Your task to perform on an android device: Open the map Image 0: 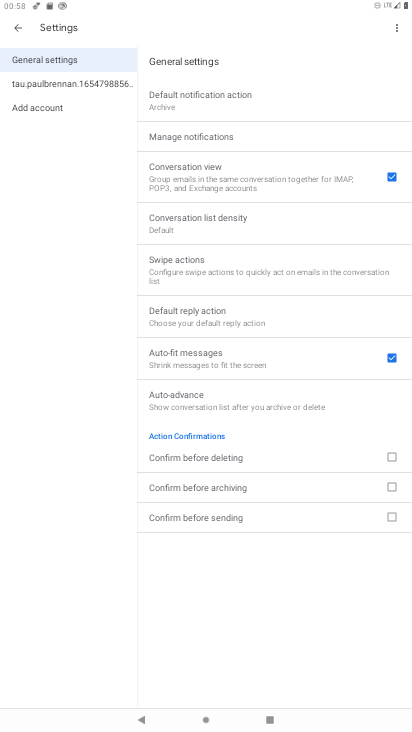
Step 0: press home button
Your task to perform on an android device: Open the map Image 1: 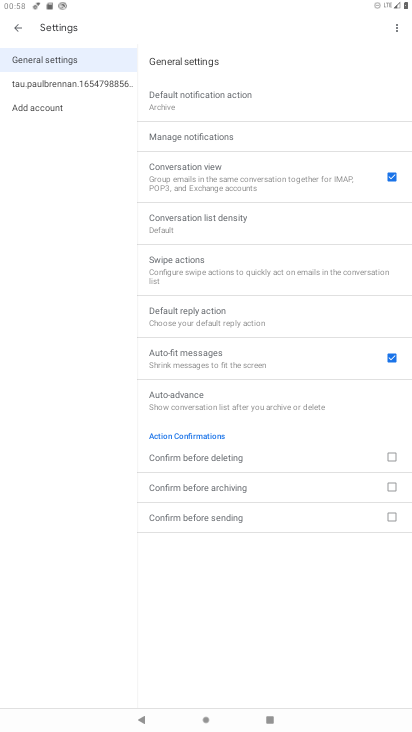
Step 1: press home button
Your task to perform on an android device: Open the map Image 2: 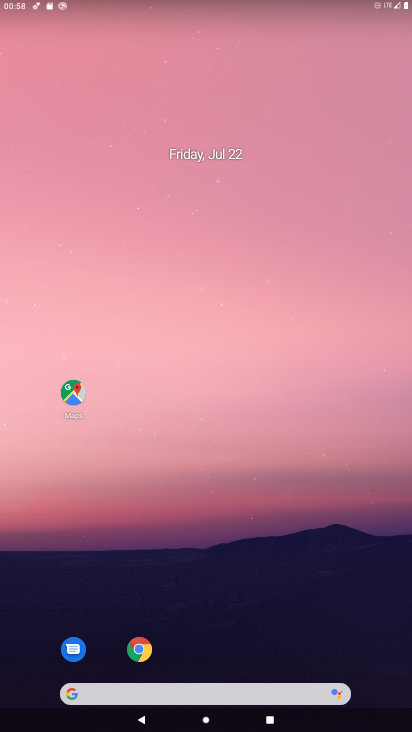
Step 2: drag from (232, 693) to (217, 367)
Your task to perform on an android device: Open the map Image 3: 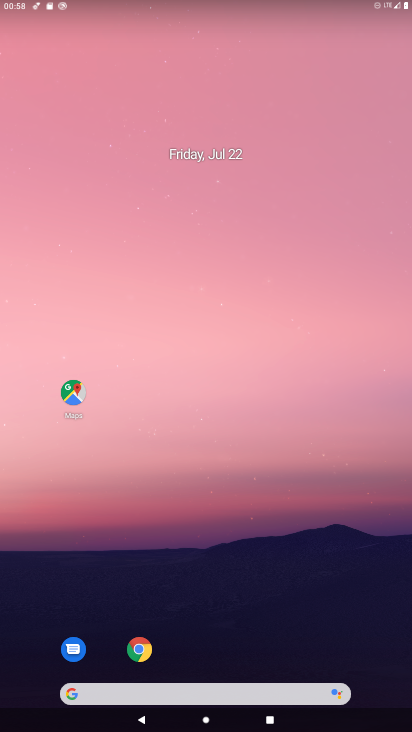
Step 3: drag from (226, 715) to (198, 171)
Your task to perform on an android device: Open the map Image 4: 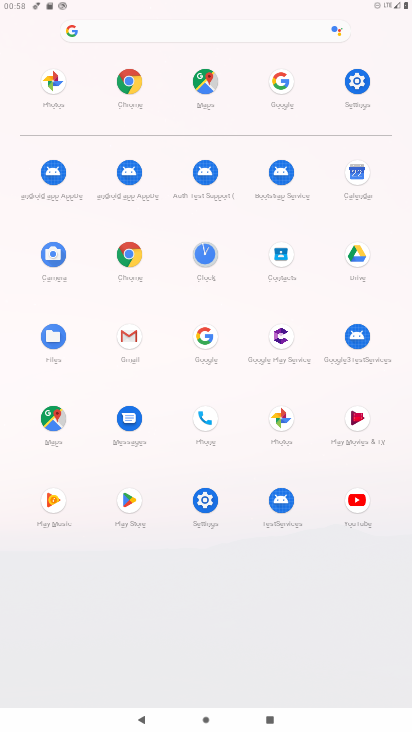
Step 4: click (53, 421)
Your task to perform on an android device: Open the map Image 5: 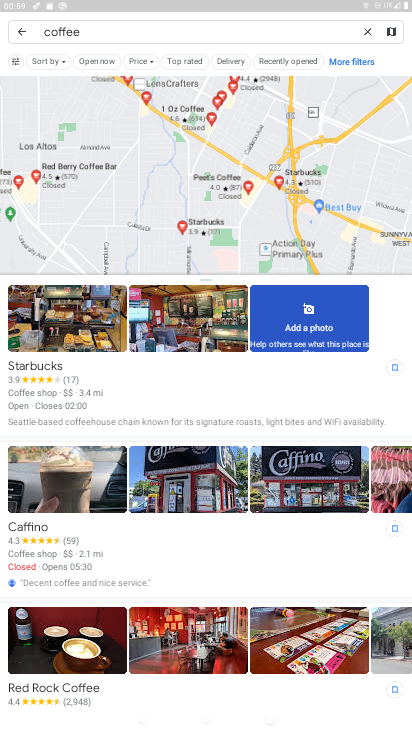
Step 5: task complete